Your task to perform on an android device: Open privacy settings Image 0: 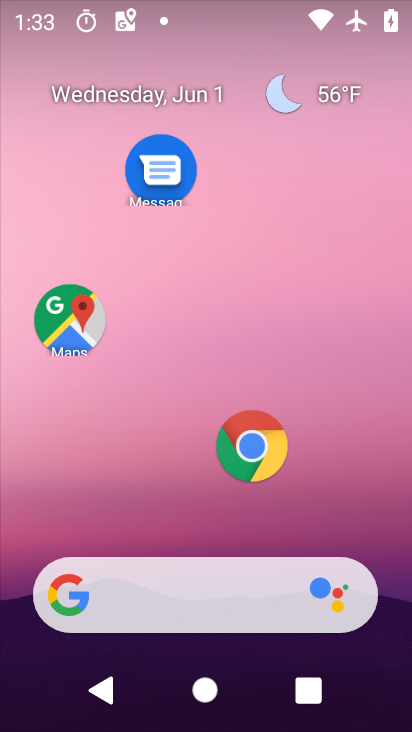
Step 0: drag from (235, 520) to (242, 83)
Your task to perform on an android device: Open privacy settings Image 1: 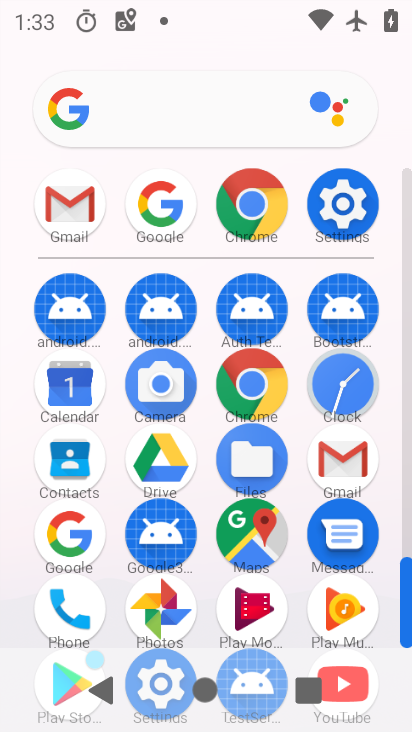
Step 1: drag from (200, 162) to (196, 30)
Your task to perform on an android device: Open privacy settings Image 2: 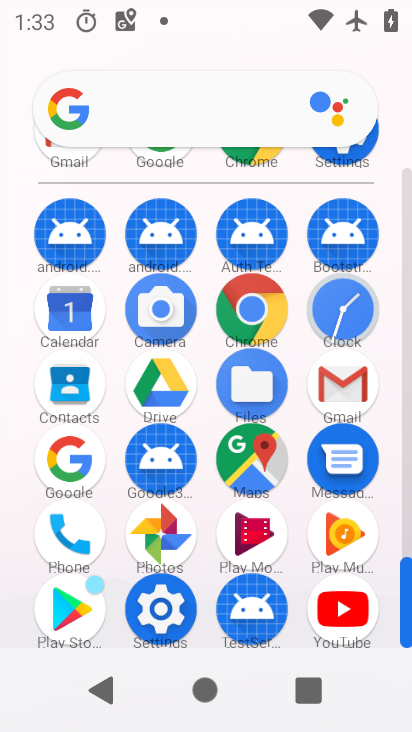
Step 2: click (173, 606)
Your task to perform on an android device: Open privacy settings Image 3: 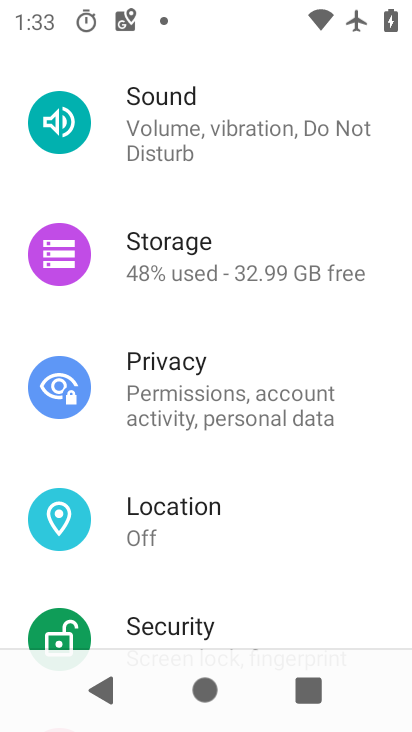
Step 3: click (214, 398)
Your task to perform on an android device: Open privacy settings Image 4: 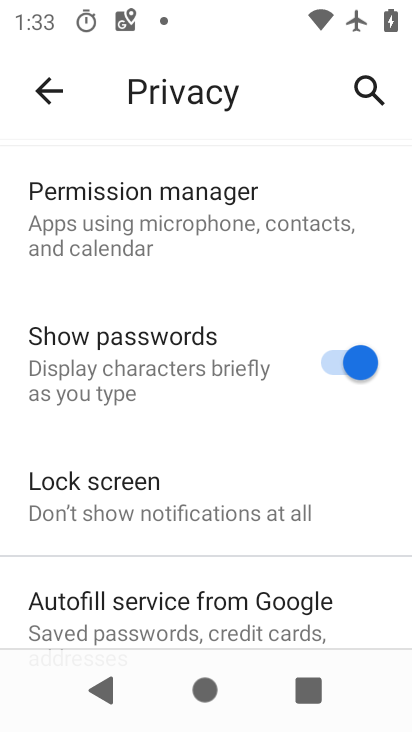
Step 4: task complete